Your task to perform on an android device: delete a single message in the gmail app Image 0: 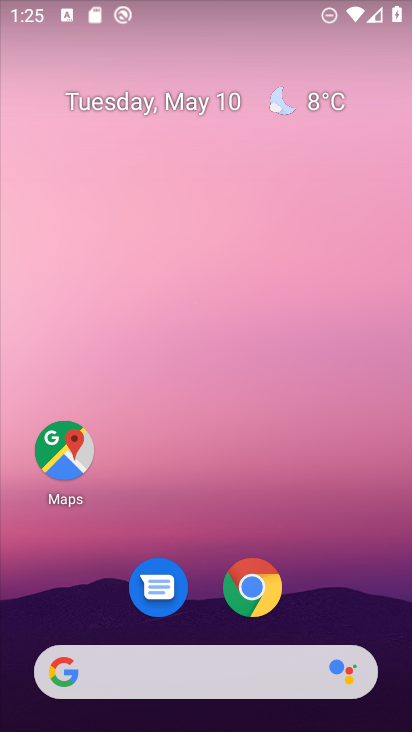
Step 0: drag from (395, 699) to (393, 311)
Your task to perform on an android device: delete a single message in the gmail app Image 1: 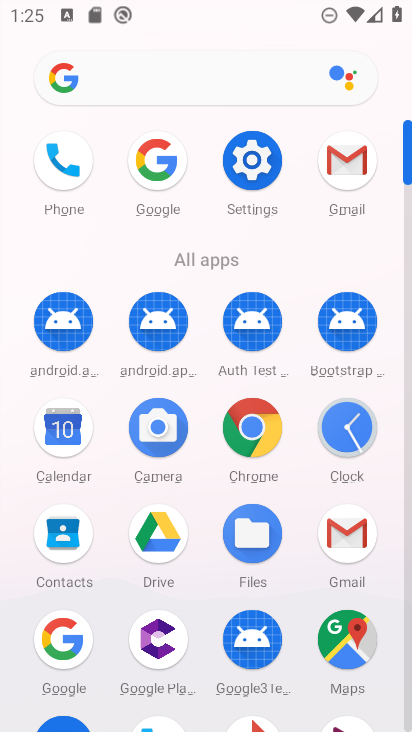
Step 1: click (350, 537)
Your task to perform on an android device: delete a single message in the gmail app Image 2: 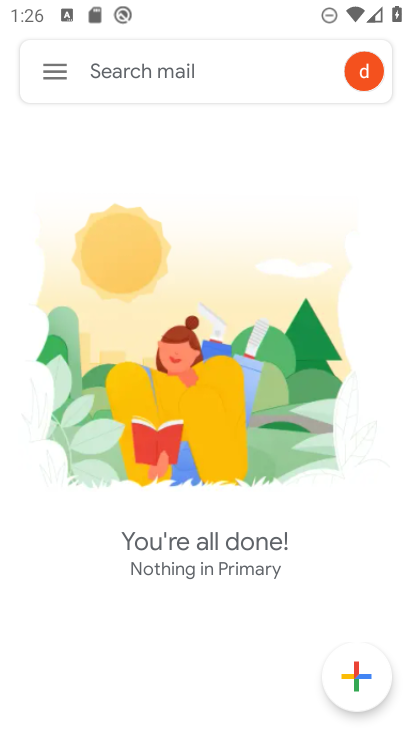
Step 2: task complete